Your task to perform on an android device: Open Google Maps Image 0: 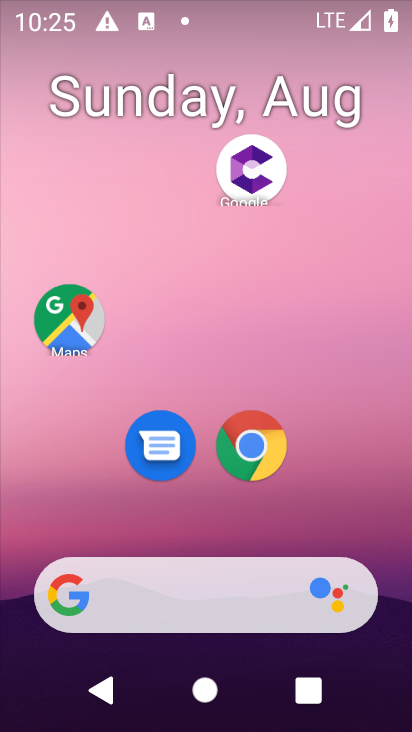
Step 0: press home button
Your task to perform on an android device: Open Google Maps Image 1: 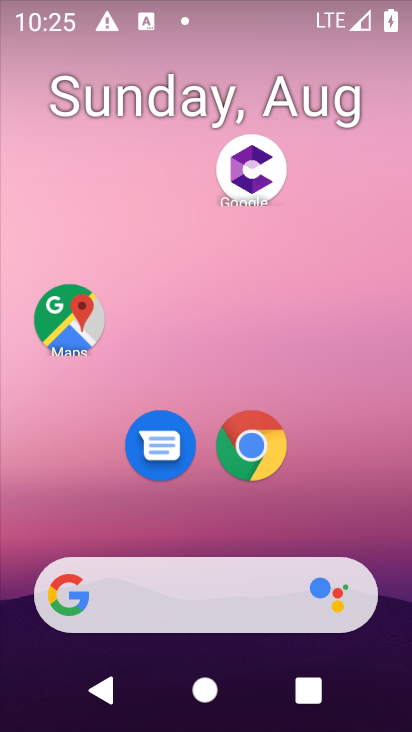
Step 1: click (69, 314)
Your task to perform on an android device: Open Google Maps Image 2: 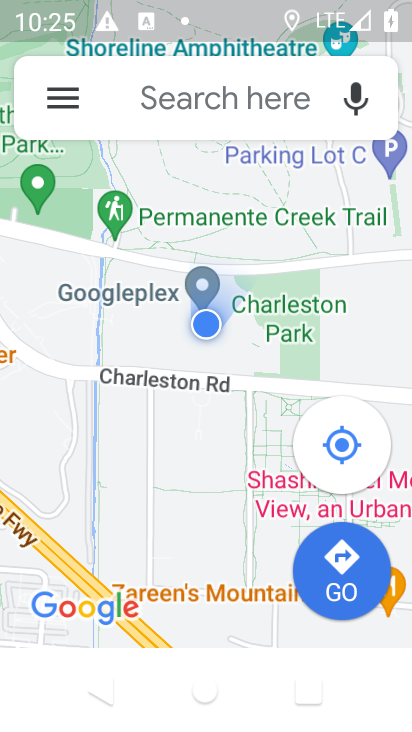
Step 2: task complete